Your task to perform on an android device: turn on bluetooth scan Image 0: 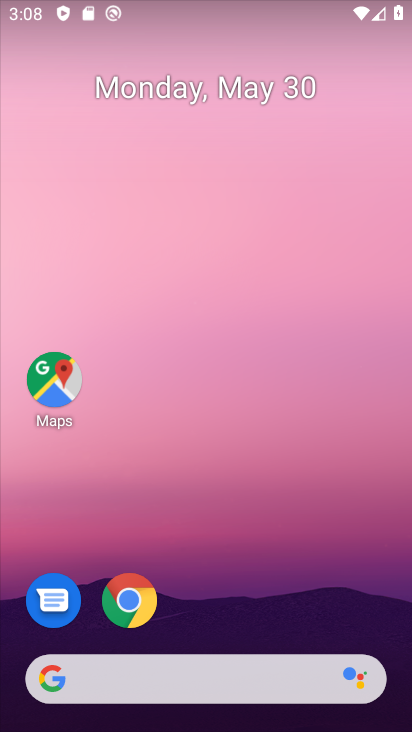
Step 0: drag from (277, 607) to (210, 188)
Your task to perform on an android device: turn on bluetooth scan Image 1: 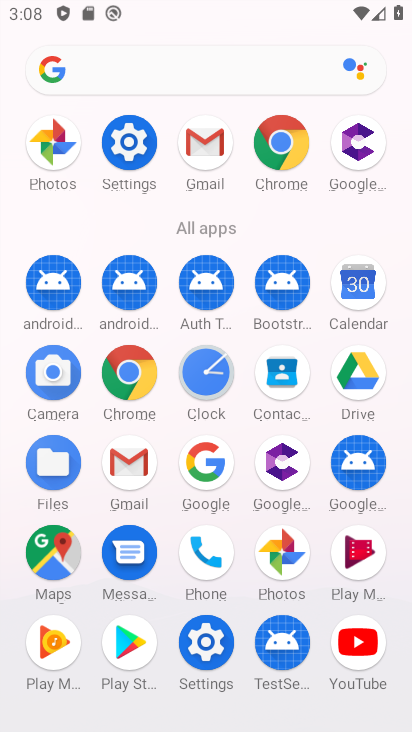
Step 1: click (134, 150)
Your task to perform on an android device: turn on bluetooth scan Image 2: 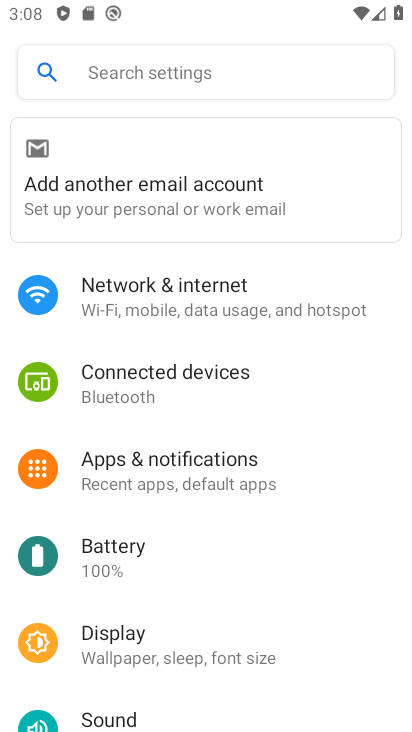
Step 2: drag from (200, 607) to (187, 149)
Your task to perform on an android device: turn on bluetooth scan Image 3: 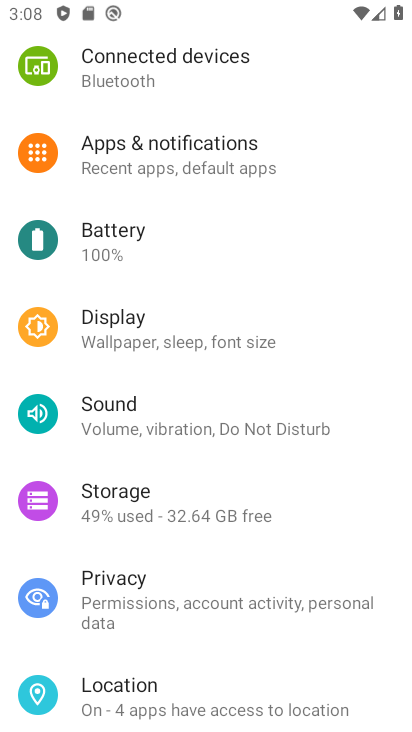
Step 3: click (242, 709)
Your task to perform on an android device: turn on bluetooth scan Image 4: 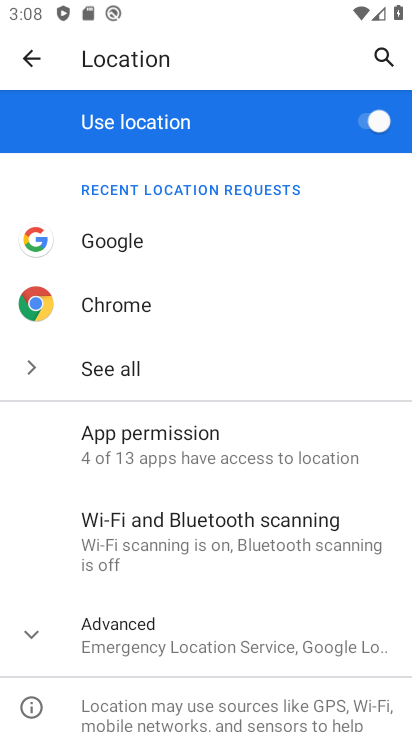
Step 4: drag from (242, 709) to (209, 461)
Your task to perform on an android device: turn on bluetooth scan Image 5: 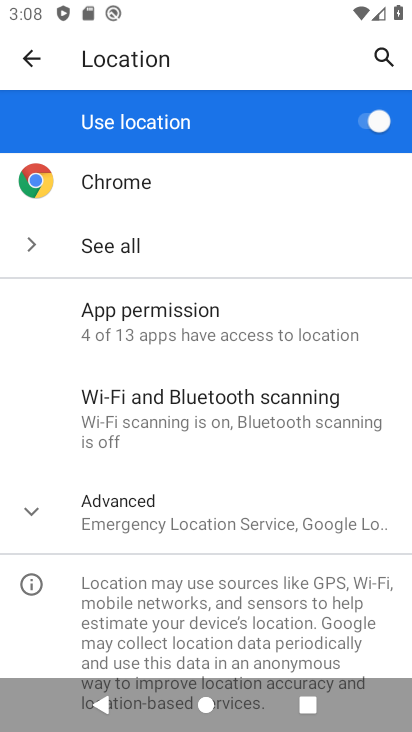
Step 5: click (223, 388)
Your task to perform on an android device: turn on bluetooth scan Image 6: 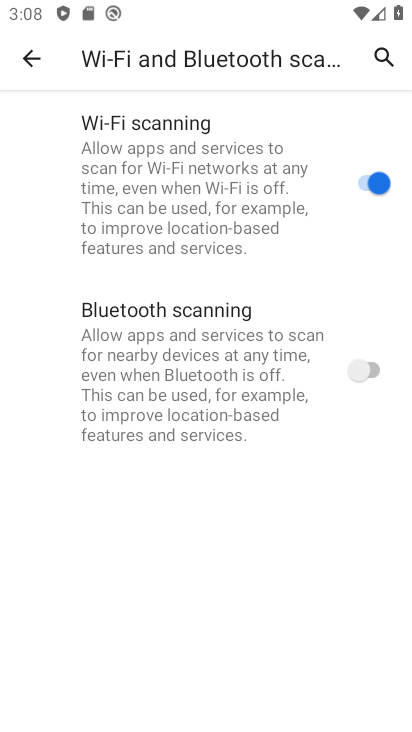
Step 6: click (318, 379)
Your task to perform on an android device: turn on bluetooth scan Image 7: 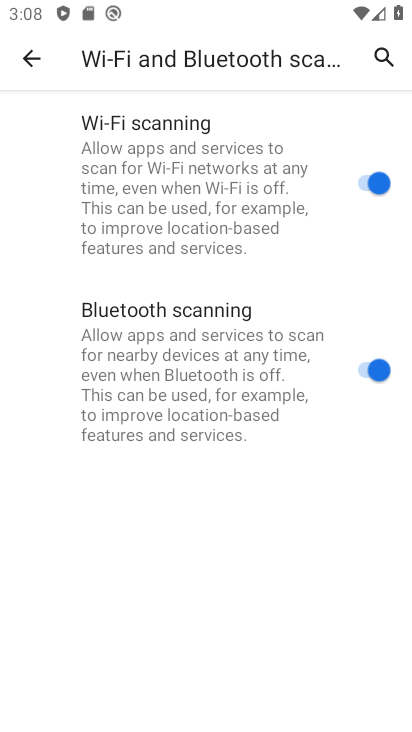
Step 7: task complete